Your task to perform on an android device: change notifications settings Image 0: 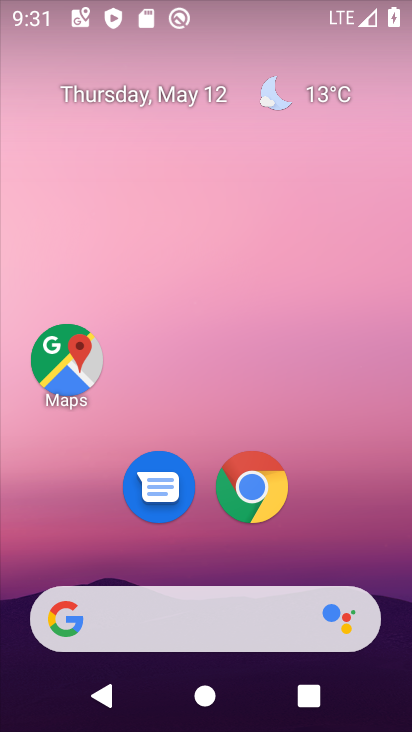
Step 0: drag from (328, 547) to (315, 24)
Your task to perform on an android device: change notifications settings Image 1: 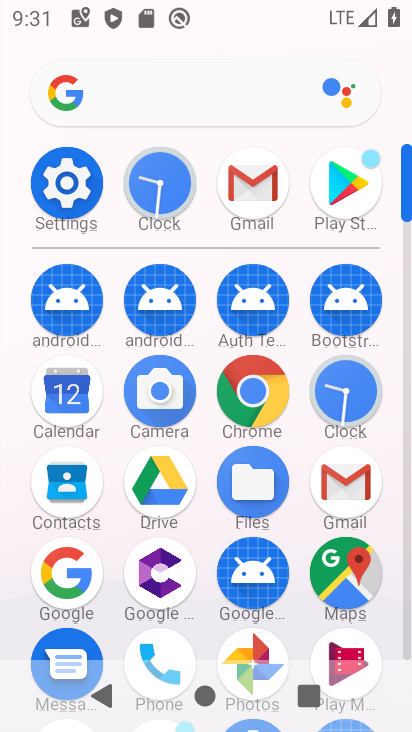
Step 1: click (67, 187)
Your task to perform on an android device: change notifications settings Image 2: 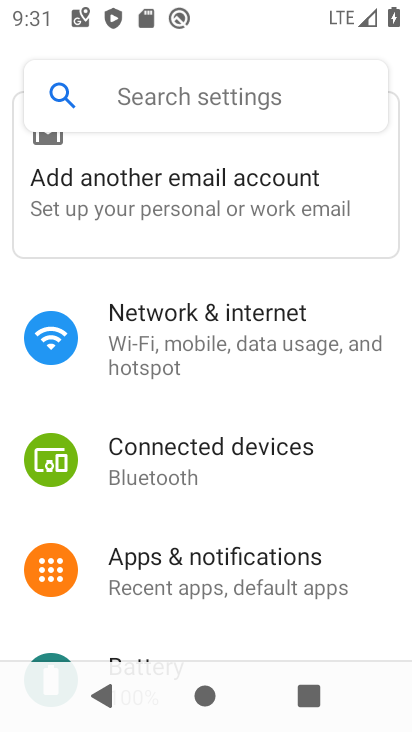
Step 2: click (211, 568)
Your task to perform on an android device: change notifications settings Image 3: 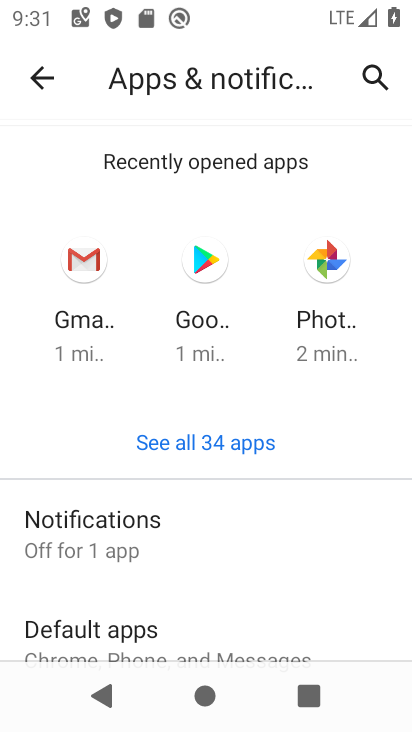
Step 3: click (133, 532)
Your task to perform on an android device: change notifications settings Image 4: 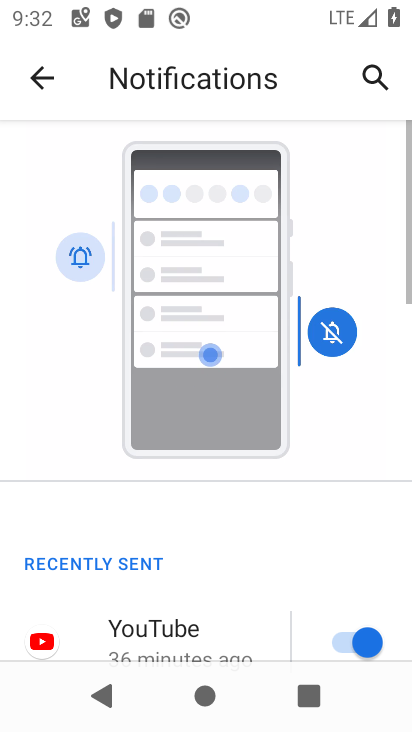
Step 4: drag from (160, 559) to (154, 60)
Your task to perform on an android device: change notifications settings Image 5: 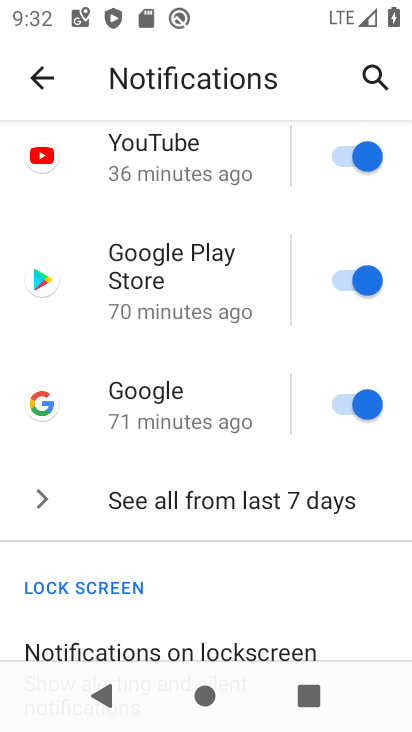
Step 5: drag from (183, 606) to (186, 297)
Your task to perform on an android device: change notifications settings Image 6: 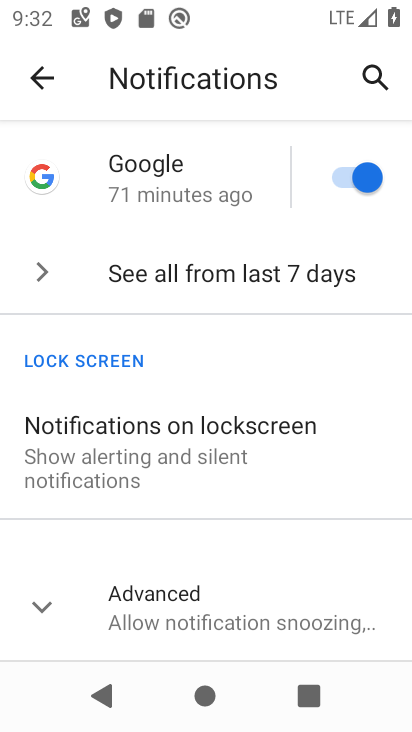
Step 6: click (188, 280)
Your task to perform on an android device: change notifications settings Image 7: 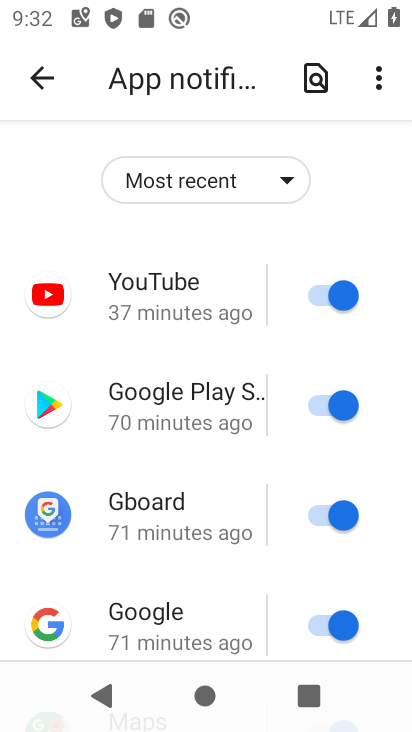
Step 7: click (289, 175)
Your task to perform on an android device: change notifications settings Image 8: 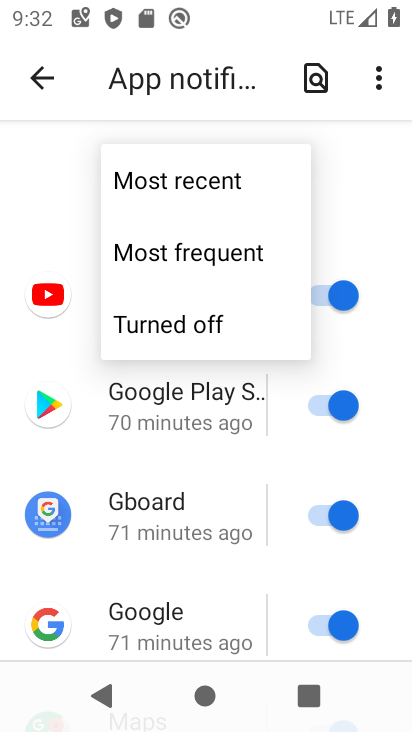
Step 8: click (159, 264)
Your task to perform on an android device: change notifications settings Image 9: 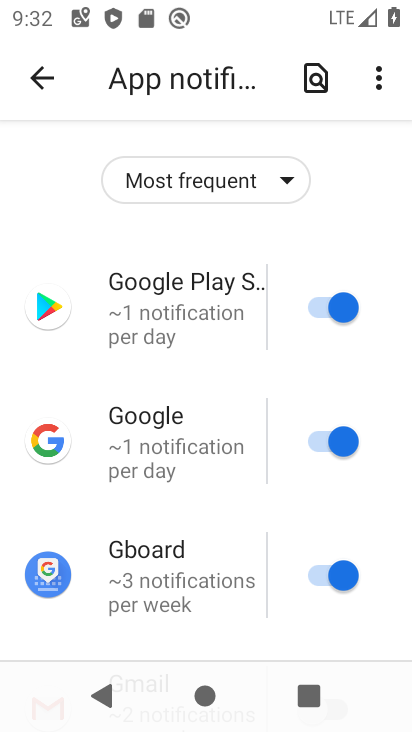
Step 9: task complete